Your task to perform on an android device: add a contact Image 0: 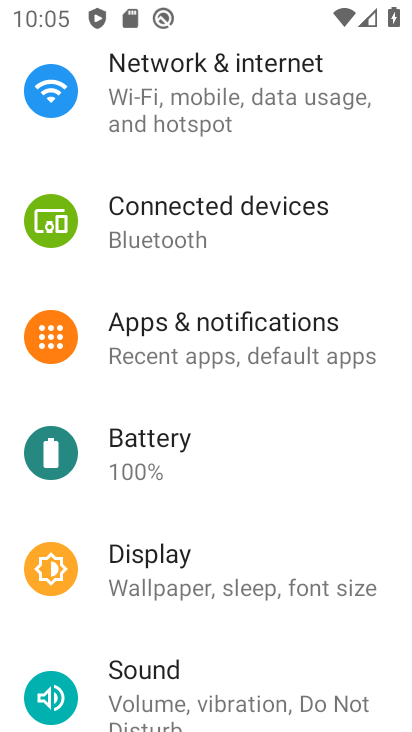
Step 0: press home button
Your task to perform on an android device: add a contact Image 1: 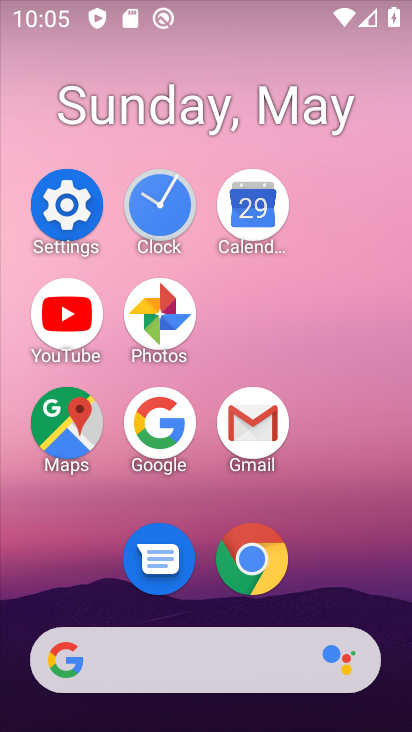
Step 1: drag from (356, 567) to (353, 179)
Your task to perform on an android device: add a contact Image 2: 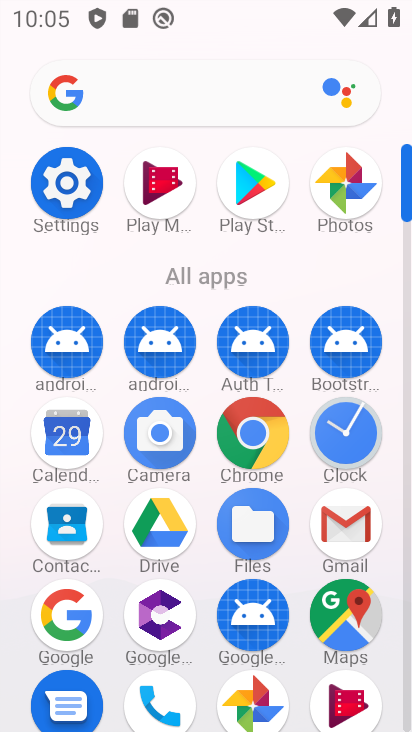
Step 2: click (59, 538)
Your task to perform on an android device: add a contact Image 3: 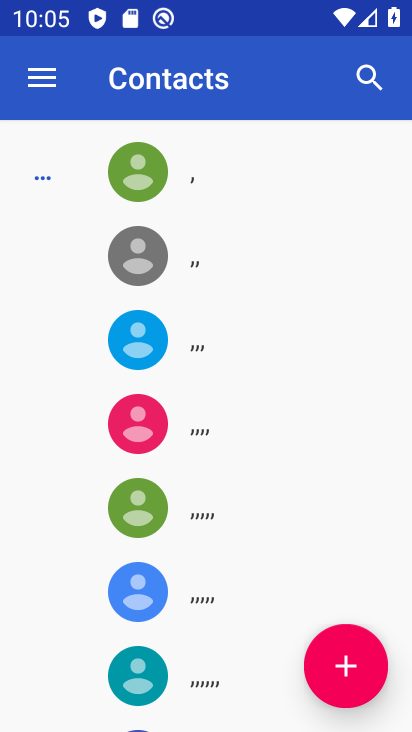
Step 3: click (327, 682)
Your task to perform on an android device: add a contact Image 4: 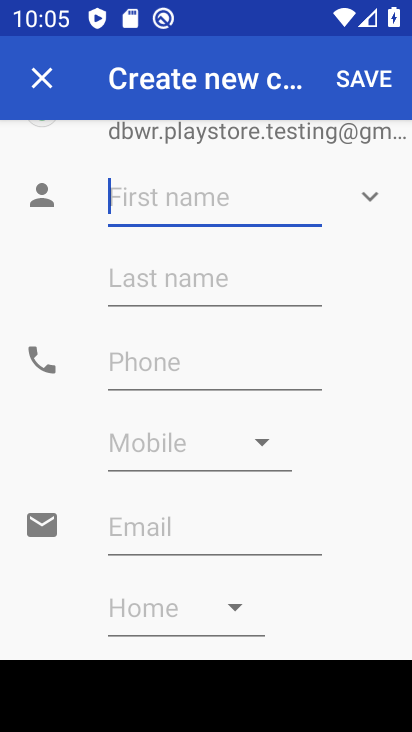
Step 4: type "ss"
Your task to perform on an android device: add a contact Image 5: 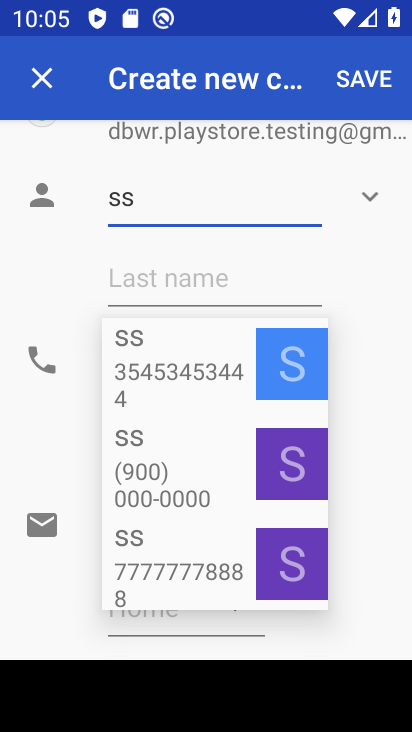
Step 5: click (181, 363)
Your task to perform on an android device: add a contact Image 6: 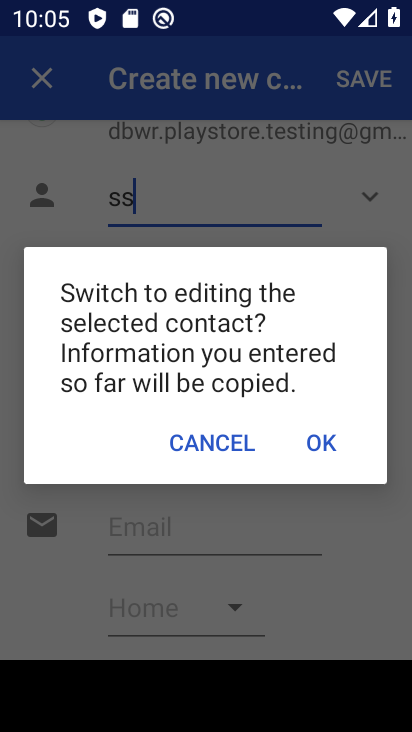
Step 6: click (341, 452)
Your task to perform on an android device: add a contact Image 7: 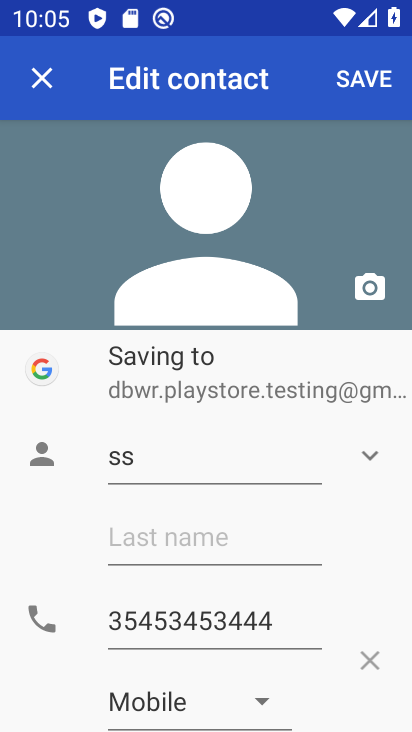
Step 7: click (53, 83)
Your task to perform on an android device: add a contact Image 8: 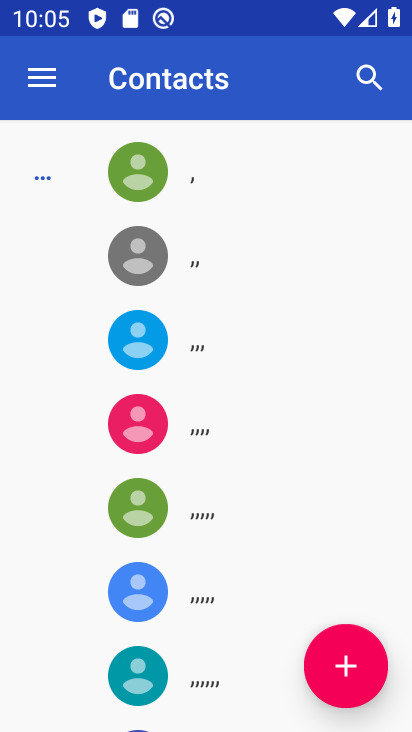
Step 8: click (338, 698)
Your task to perform on an android device: add a contact Image 9: 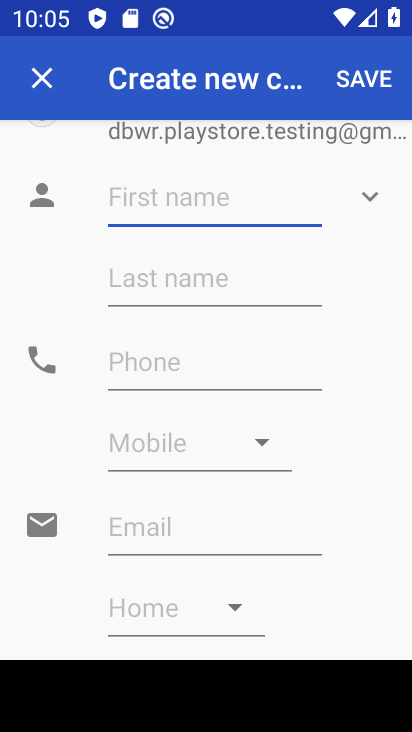
Step 9: click (185, 200)
Your task to perform on an android device: add a contact Image 10: 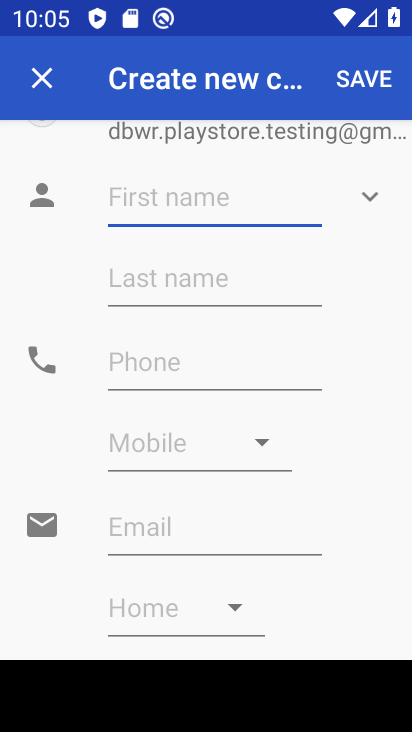
Step 10: type "sssasad"
Your task to perform on an android device: add a contact Image 11: 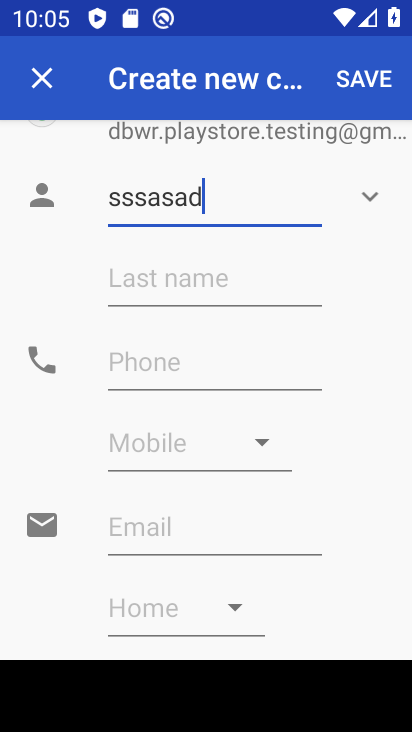
Step 11: click (237, 359)
Your task to perform on an android device: add a contact Image 12: 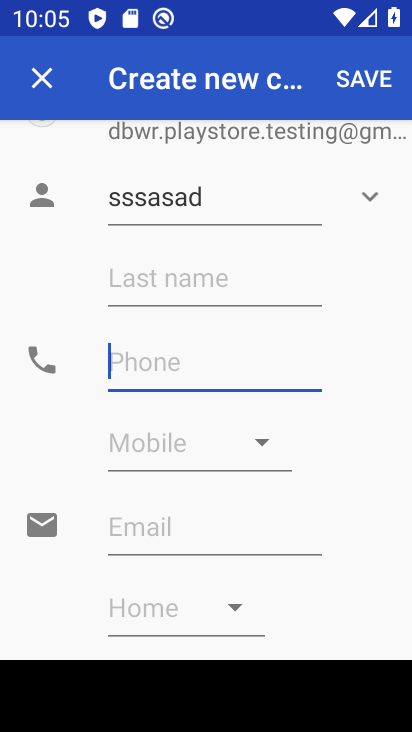
Step 12: type "1122334456"
Your task to perform on an android device: add a contact Image 13: 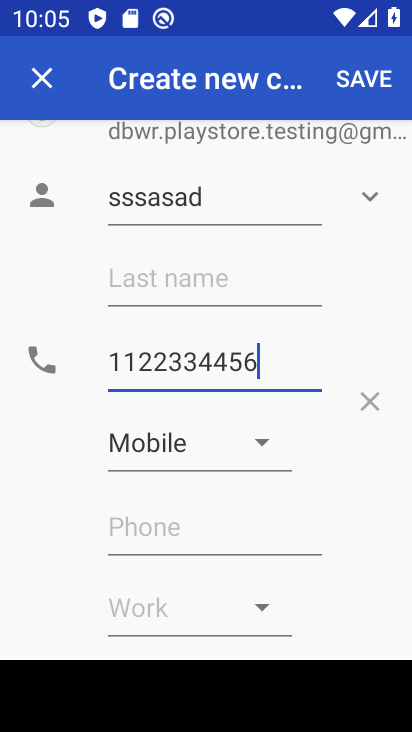
Step 13: click (368, 80)
Your task to perform on an android device: add a contact Image 14: 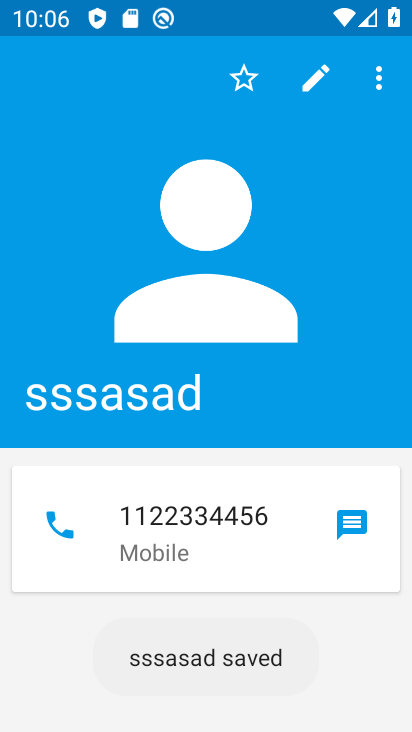
Step 14: task complete